Your task to perform on an android device: Go to Reddit.com Image 0: 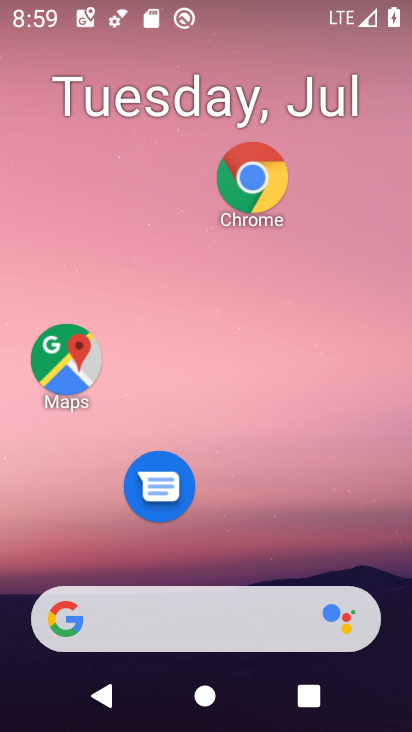
Step 0: drag from (279, 563) to (313, 105)
Your task to perform on an android device: Go to Reddit.com Image 1: 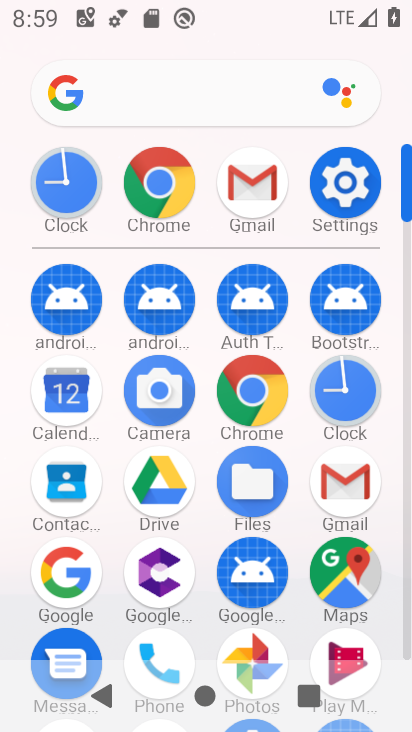
Step 1: click (184, 205)
Your task to perform on an android device: Go to Reddit.com Image 2: 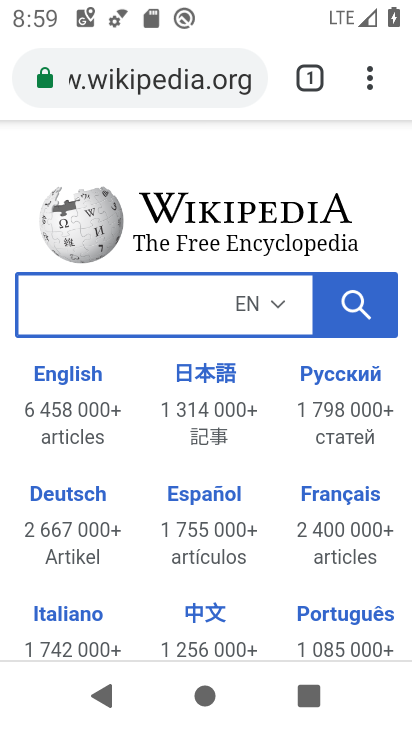
Step 2: click (207, 86)
Your task to perform on an android device: Go to Reddit.com Image 3: 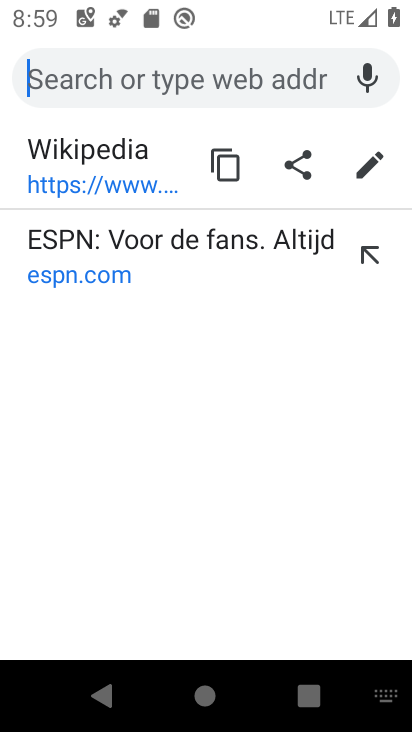
Step 3: type "reddit"
Your task to perform on an android device: Go to Reddit.com Image 4: 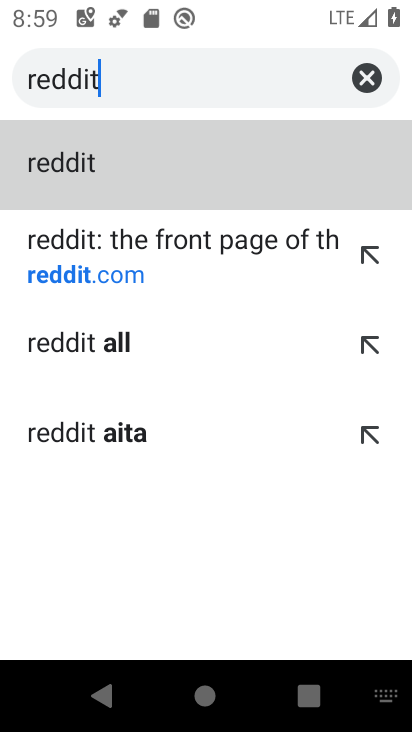
Step 4: click (173, 270)
Your task to perform on an android device: Go to Reddit.com Image 5: 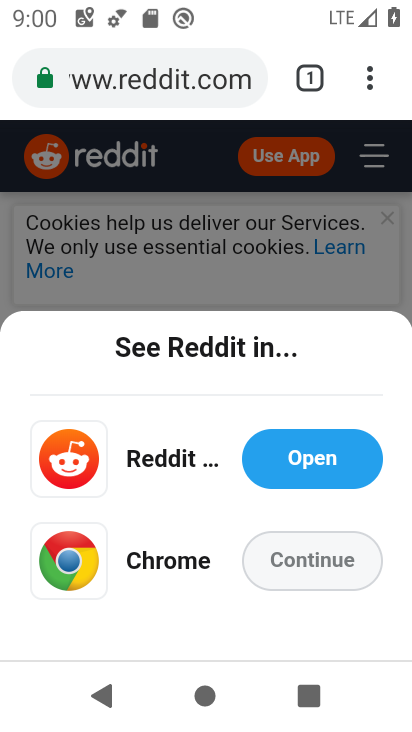
Step 5: task complete